Your task to perform on an android device: Go to wifi settings Image 0: 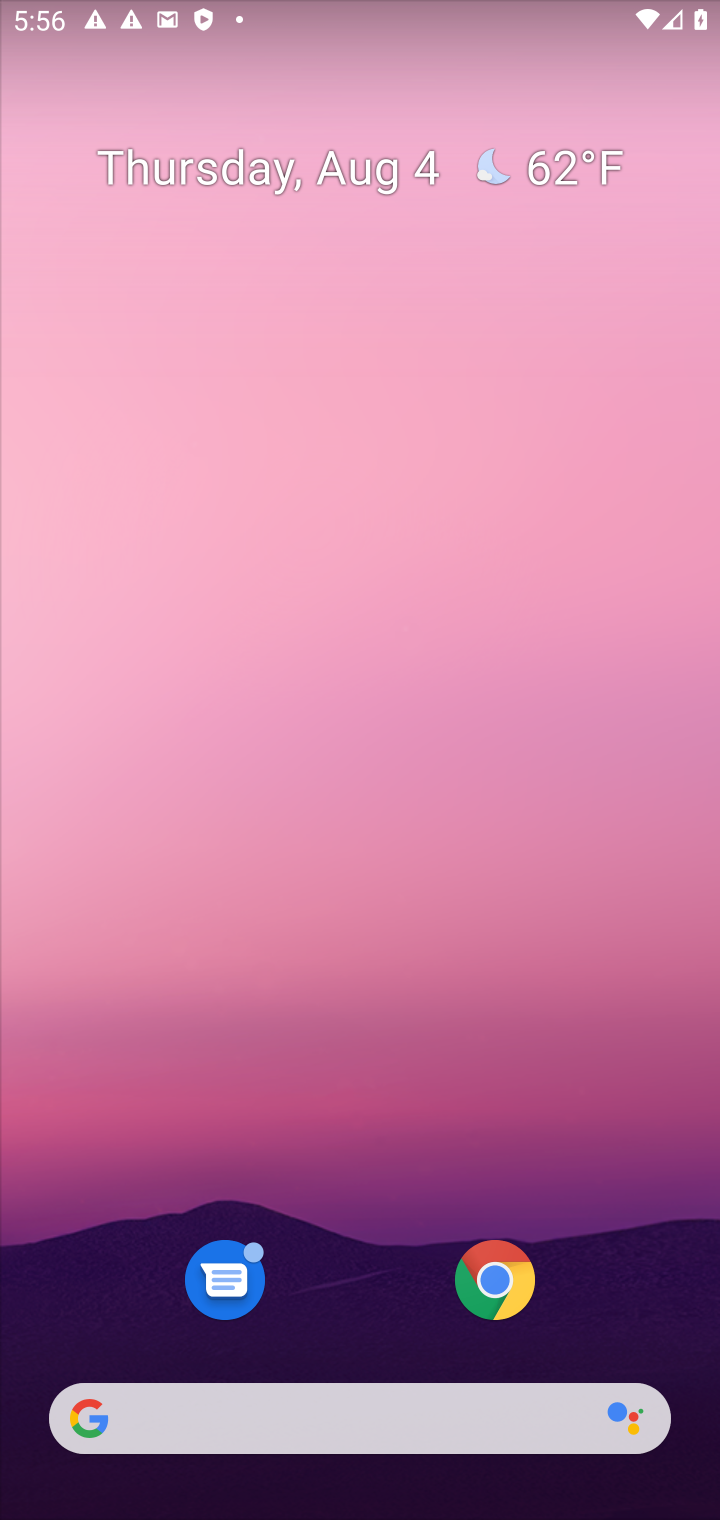
Step 0: drag from (345, 1050) to (423, 412)
Your task to perform on an android device: Go to wifi settings Image 1: 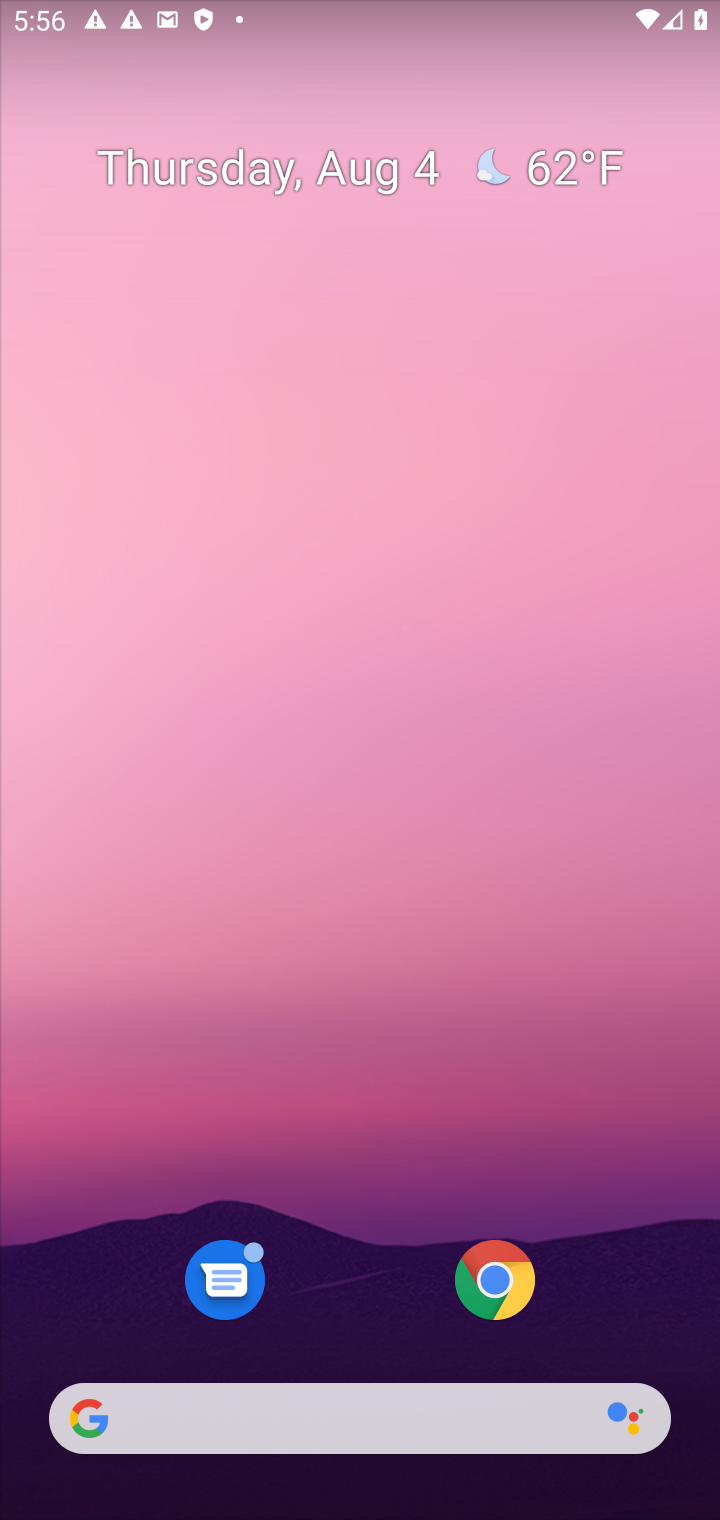
Step 1: drag from (230, 925) to (254, 79)
Your task to perform on an android device: Go to wifi settings Image 2: 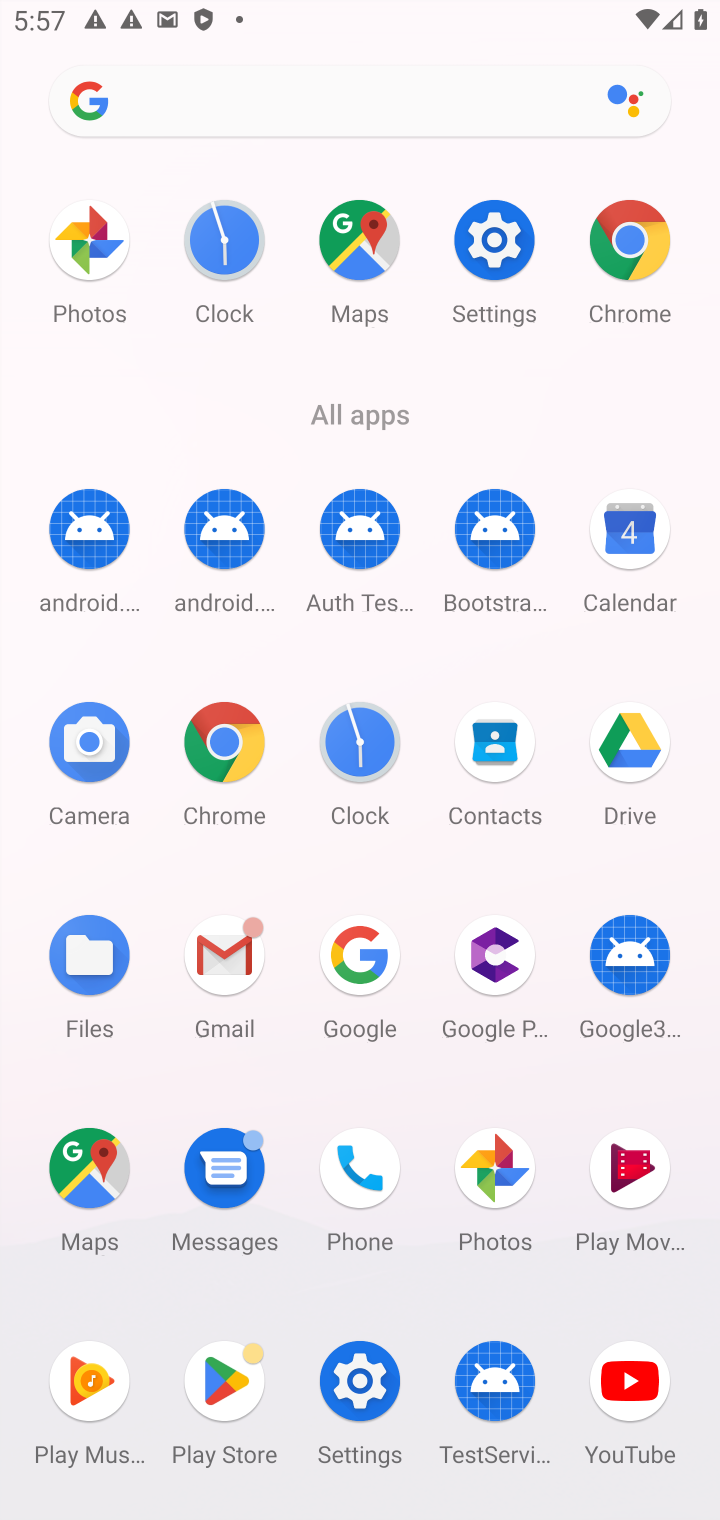
Step 2: click (498, 258)
Your task to perform on an android device: Go to wifi settings Image 3: 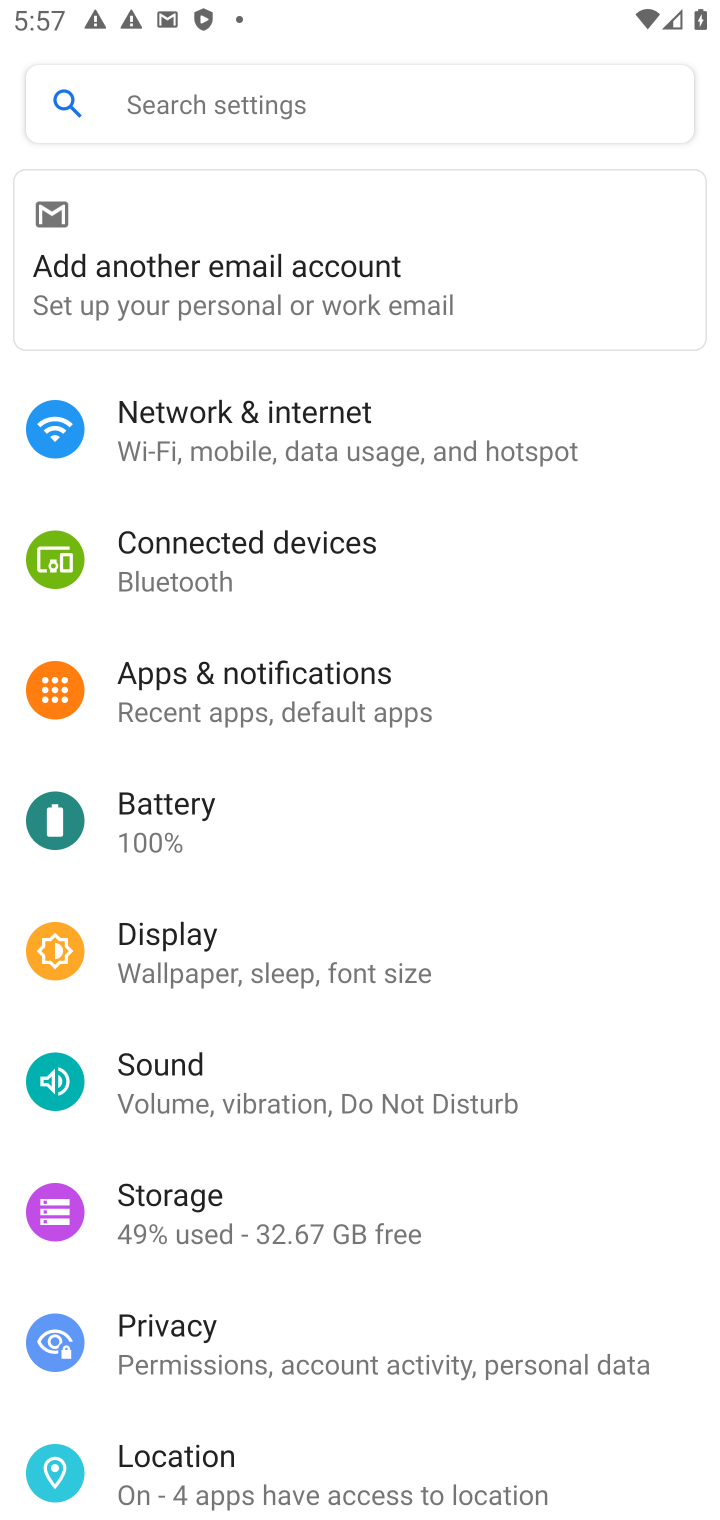
Step 3: click (308, 456)
Your task to perform on an android device: Go to wifi settings Image 4: 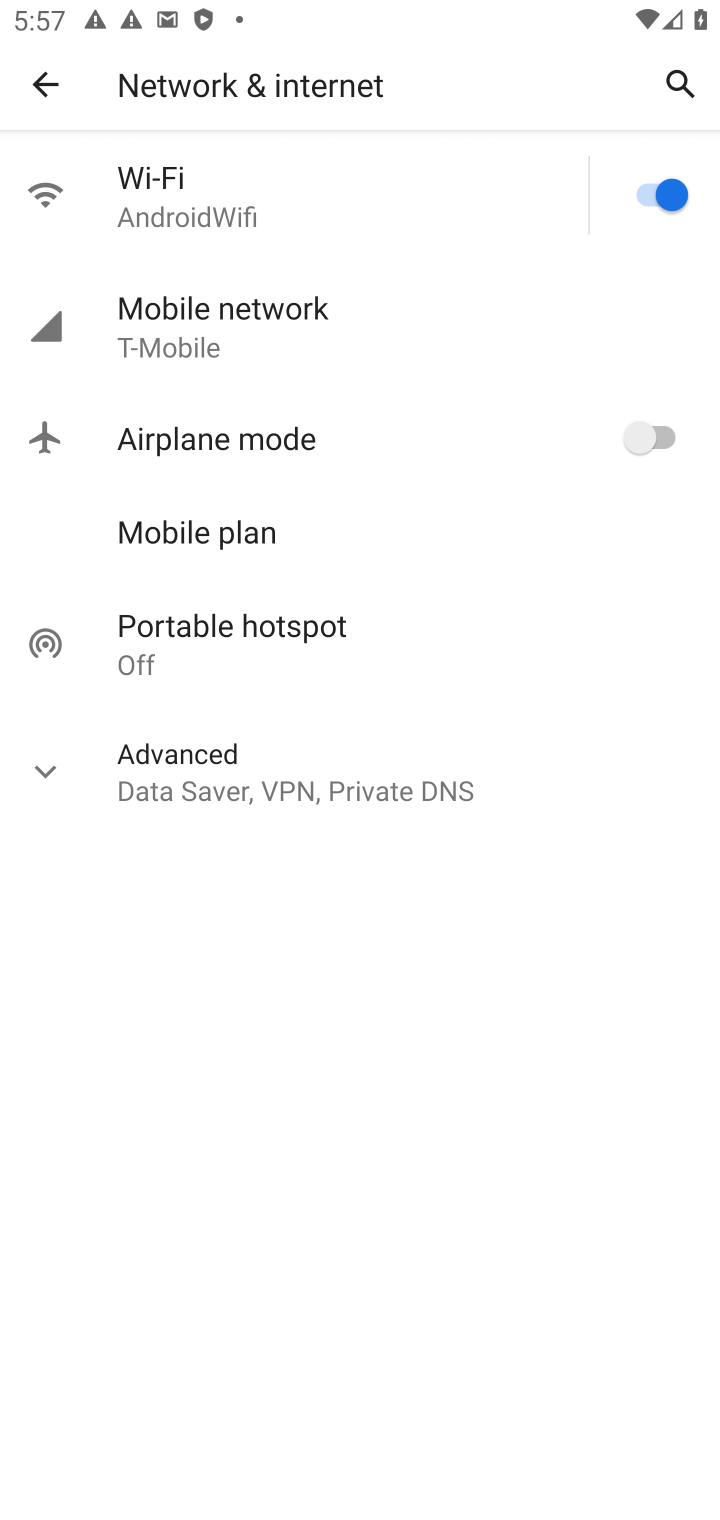
Step 4: click (285, 206)
Your task to perform on an android device: Go to wifi settings Image 5: 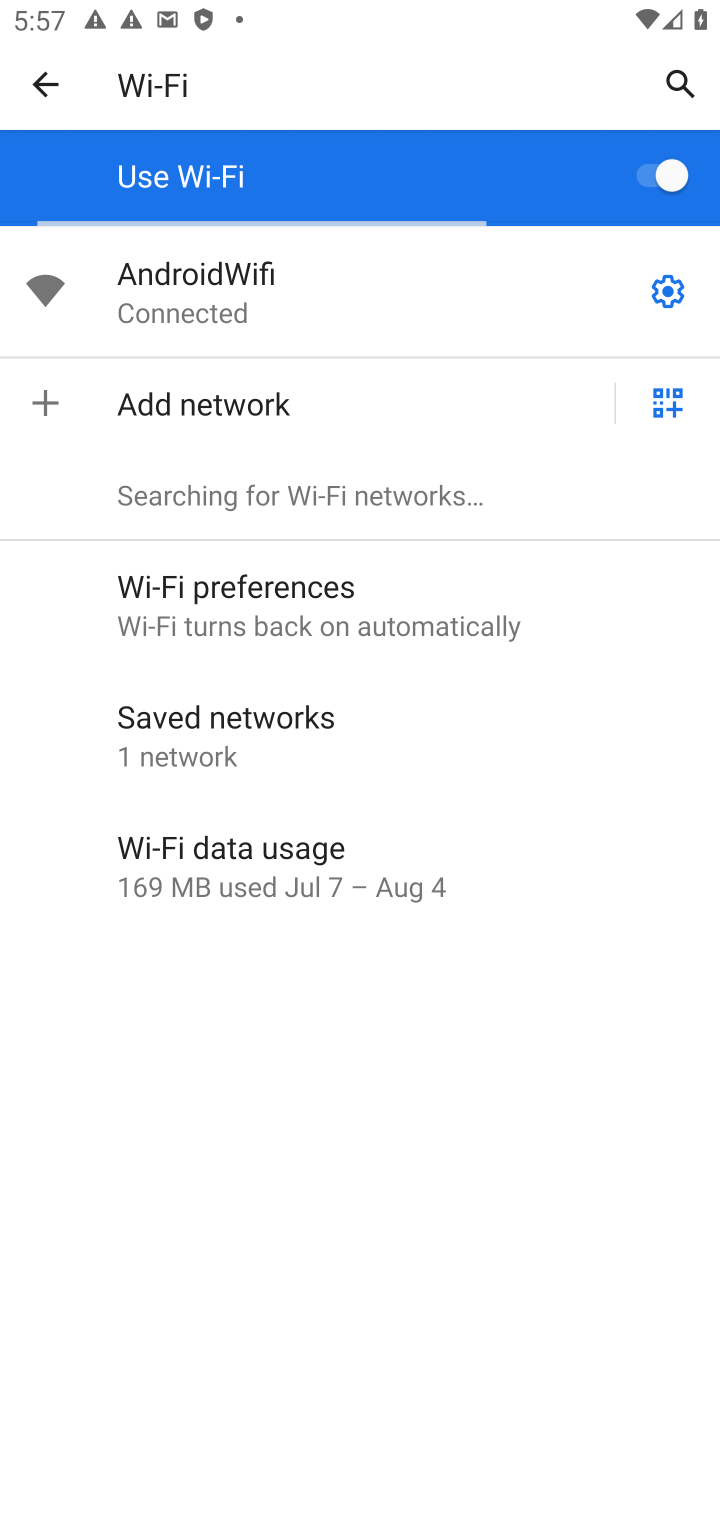
Step 5: task complete